Your task to perform on an android device: toggle priority inbox in the gmail app Image 0: 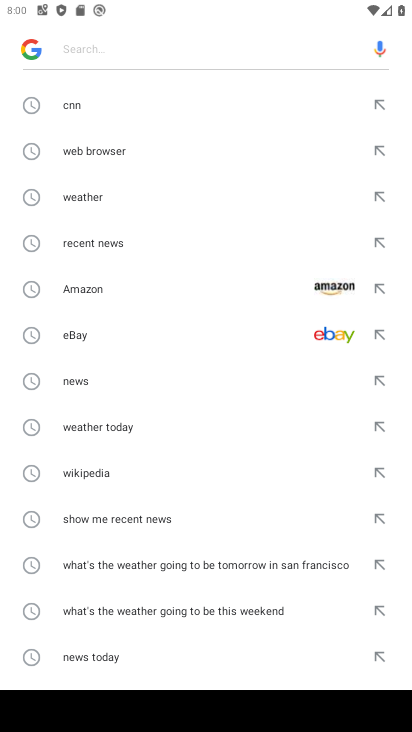
Step 0: press home button
Your task to perform on an android device: toggle priority inbox in the gmail app Image 1: 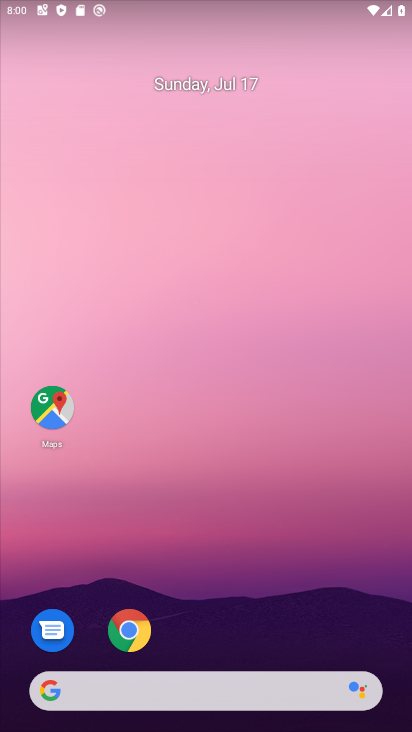
Step 1: drag from (223, 726) to (21, 8)
Your task to perform on an android device: toggle priority inbox in the gmail app Image 2: 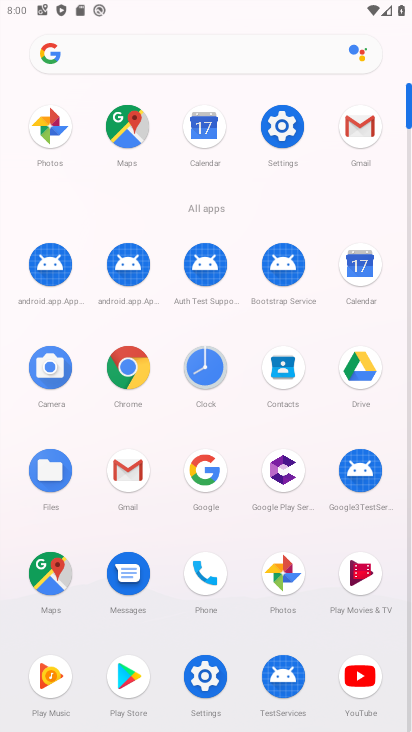
Step 2: click (369, 117)
Your task to perform on an android device: toggle priority inbox in the gmail app Image 3: 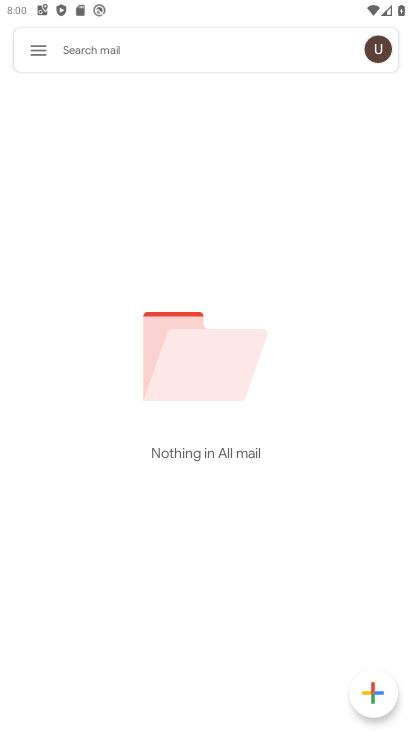
Step 3: click (37, 42)
Your task to perform on an android device: toggle priority inbox in the gmail app Image 4: 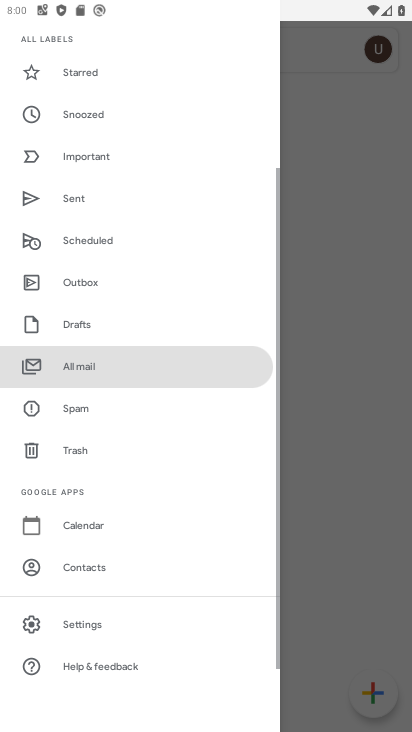
Step 4: click (99, 624)
Your task to perform on an android device: toggle priority inbox in the gmail app Image 5: 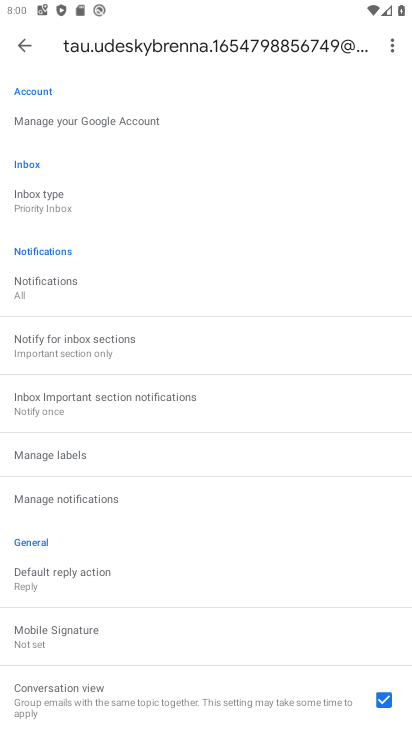
Step 5: click (50, 197)
Your task to perform on an android device: toggle priority inbox in the gmail app Image 6: 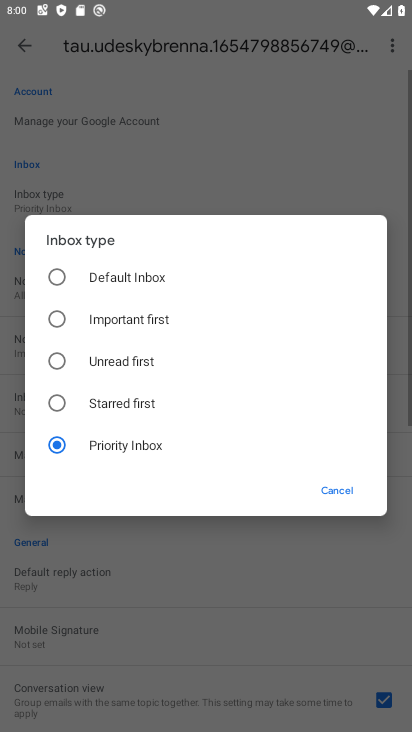
Step 6: click (121, 261)
Your task to perform on an android device: toggle priority inbox in the gmail app Image 7: 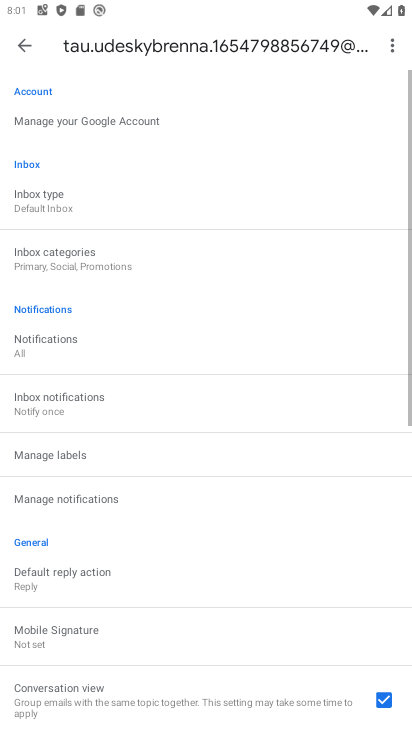
Step 7: task complete